Your task to perform on an android device: Go to Android settings Image 0: 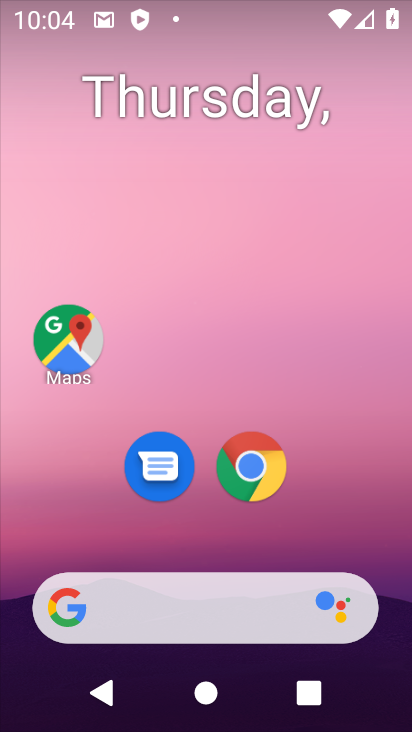
Step 0: drag from (144, 612) to (259, 68)
Your task to perform on an android device: Go to Android settings Image 1: 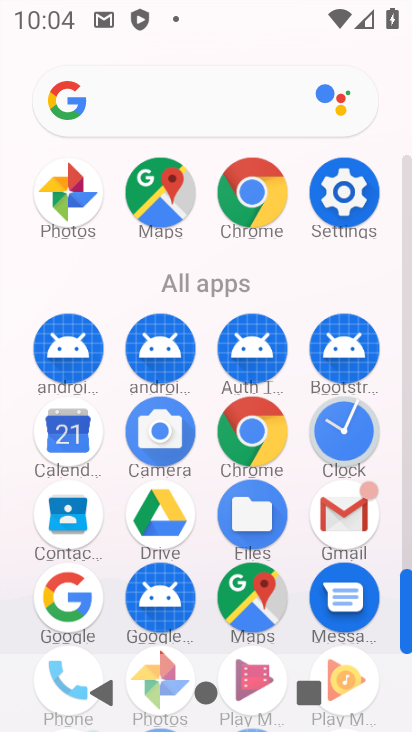
Step 1: click (343, 211)
Your task to perform on an android device: Go to Android settings Image 2: 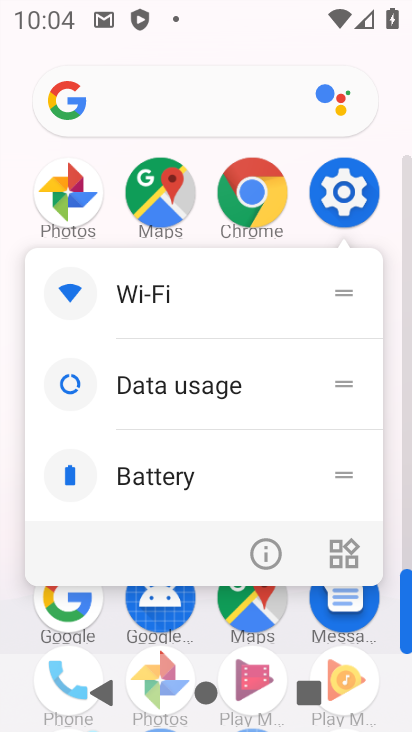
Step 2: click (338, 199)
Your task to perform on an android device: Go to Android settings Image 3: 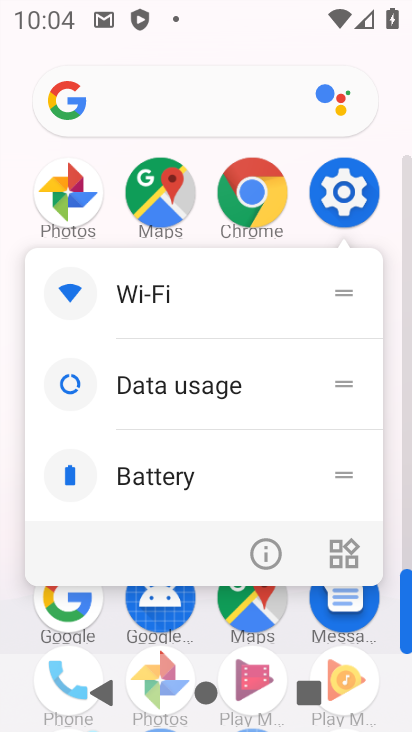
Step 3: click (337, 197)
Your task to perform on an android device: Go to Android settings Image 4: 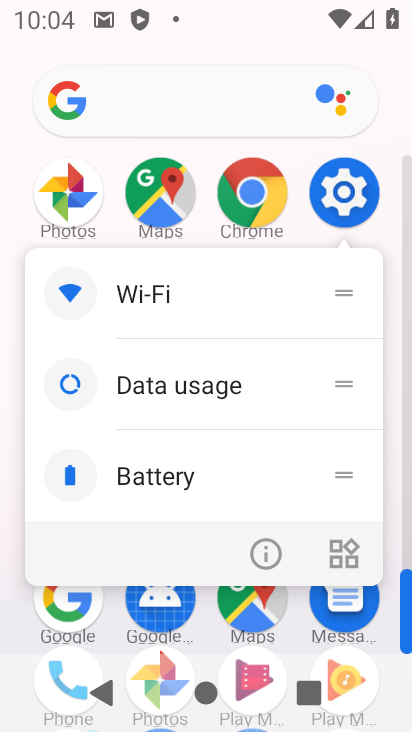
Step 4: click (343, 198)
Your task to perform on an android device: Go to Android settings Image 5: 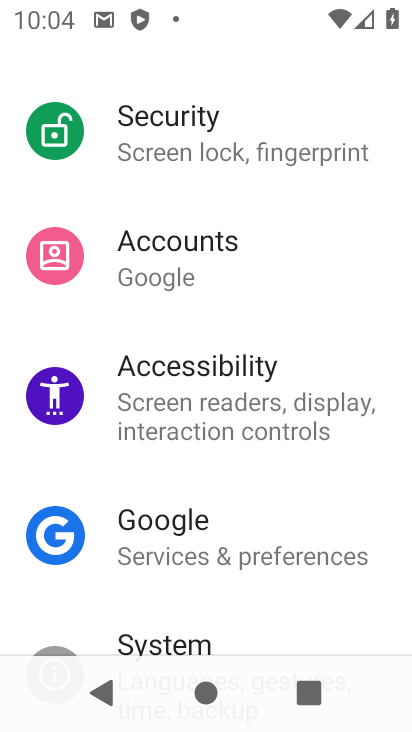
Step 5: task complete